Your task to perform on an android device: Open privacy settings Image 0: 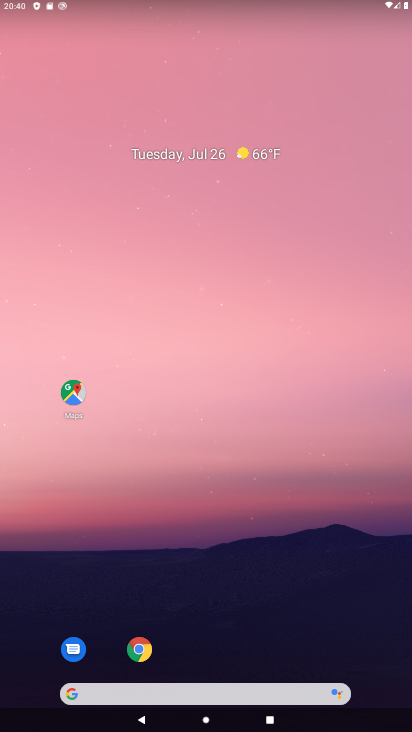
Step 0: drag from (171, 699) to (194, 23)
Your task to perform on an android device: Open privacy settings Image 1: 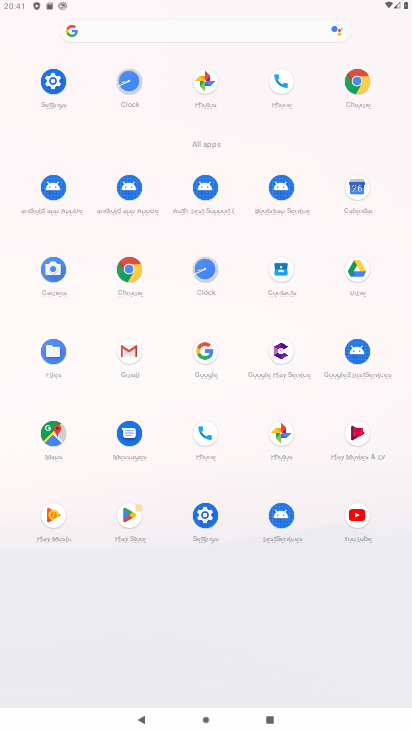
Step 1: click (205, 524)
Your task to perform on an android device: Open privacy settings Image 2: 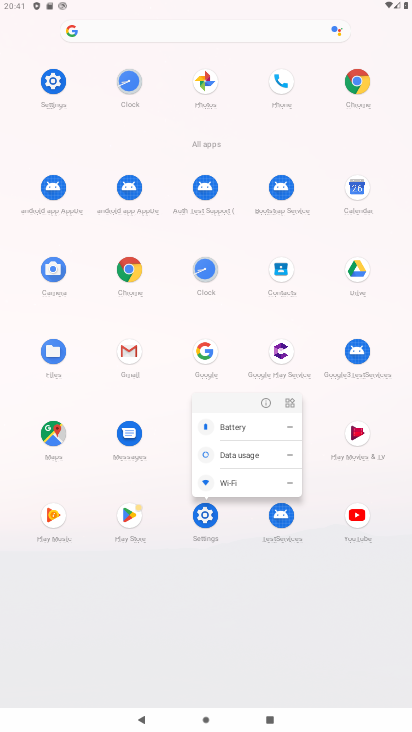
Step 2: click (205, 524)
Your task to perform on an android device: Open privacy settings Image 3: 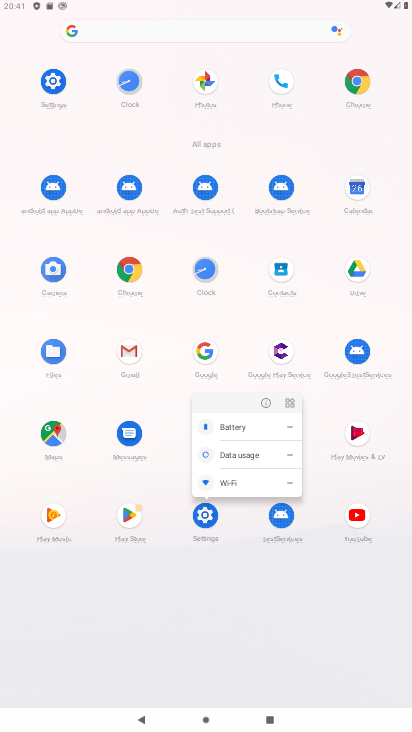
Step 3: click (205, 524)
Your task to perform on an android device: Open privacy settings Image 4: 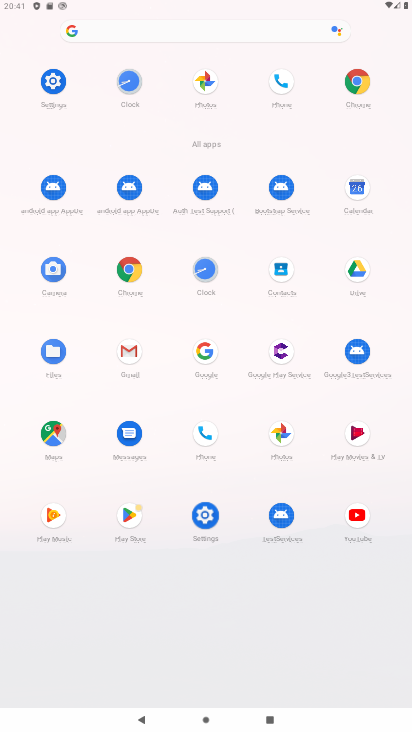
Step 4: click (205, 524)
Your task to perform on an android device: Open privacy settings Image 5: 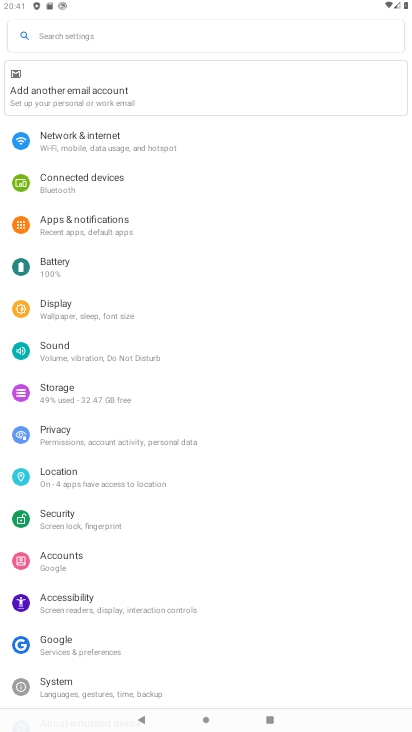
Step 5: click (99, 434)
Your task to perform on an android device: Open privacy settings Image 6: 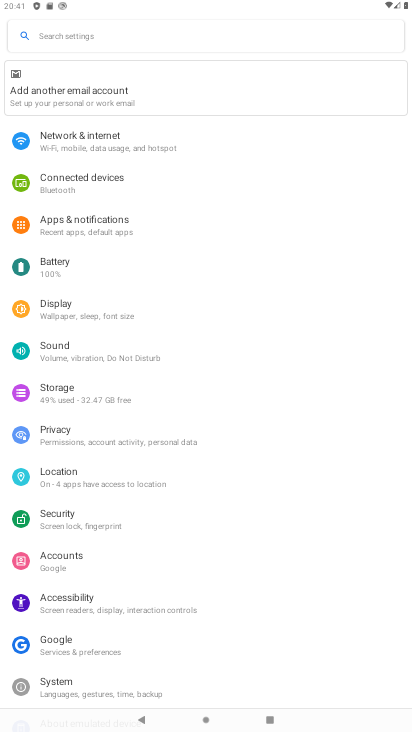
Step 6: click (99, 434)
Your task to perform on an android device: Open privacy settings Image 7: 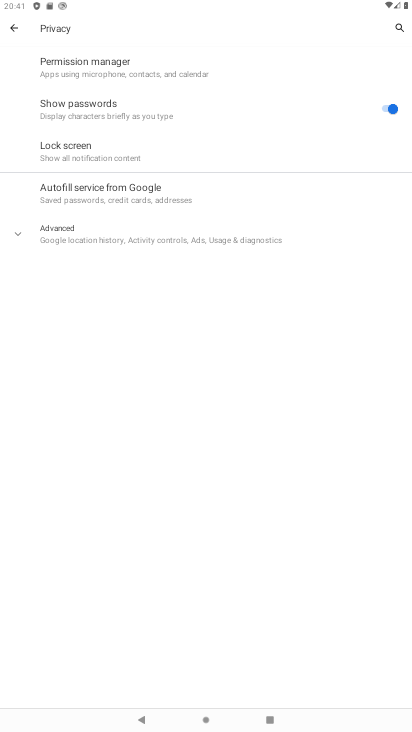
Step 7: task complete